Your task to perform on an android device: toggle javascript in the chrome app Image 0: 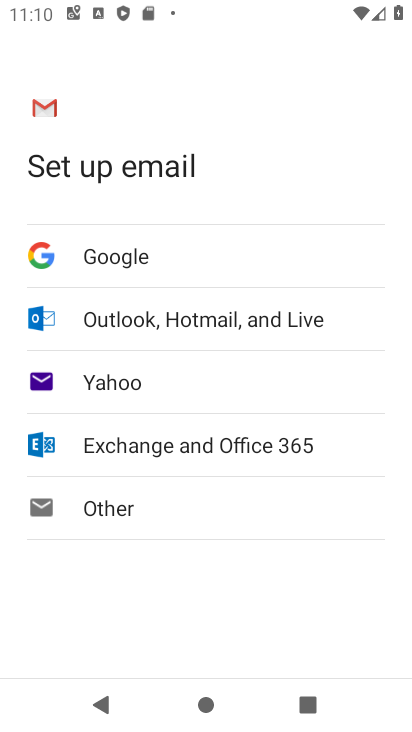
Step 0: press home button
Your task to perform on an android device: toggle javascript in the chrome app Image 1: 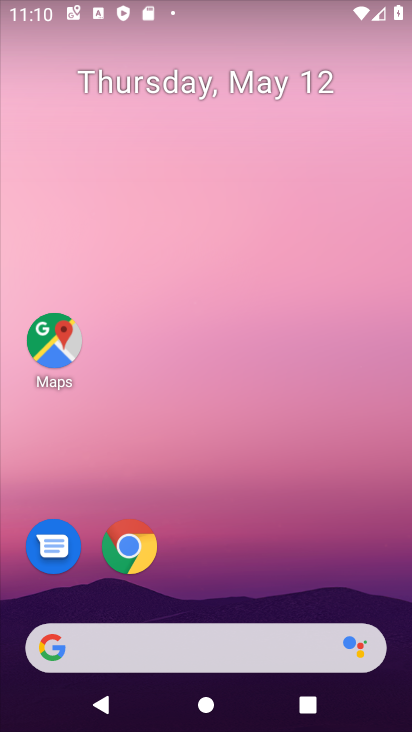
Step 1: drag from (259, 669) to (325, 179)
Your task to perform on an android device: toggle javascript in the chrome app Image 2: 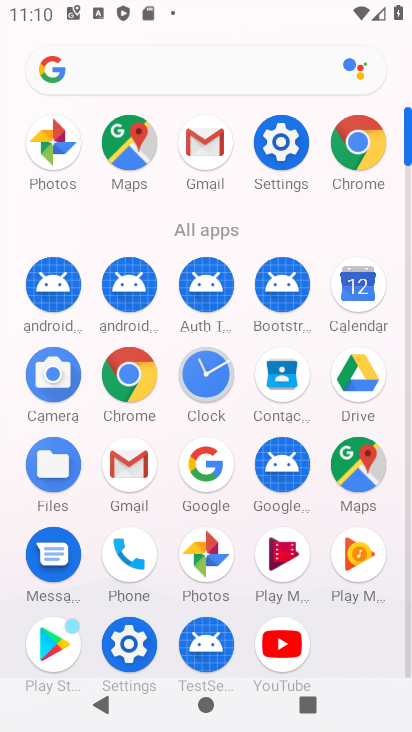
Step 2: click (360, 163)
Your task to perform on an android device: toggle javascript in the chrome app Image 3: 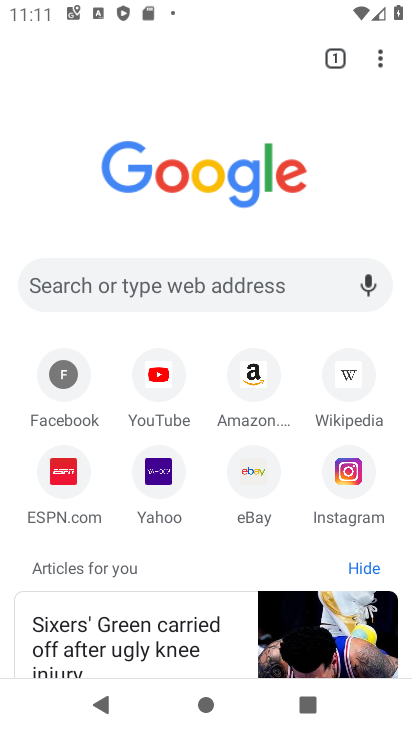
Step 3: click (379, 61)
Your task to perform on an android device: toggle javascript in the chrome app Image 4: 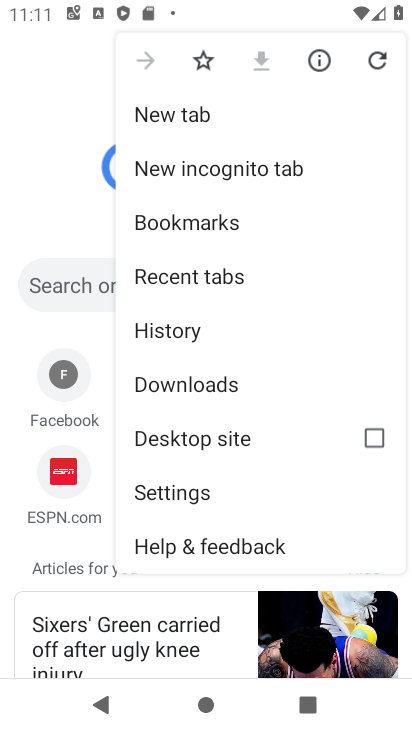
Step 4: click (167, 496)
Your task to perform on an android device: toggle javascript in the chrome app Image 5: 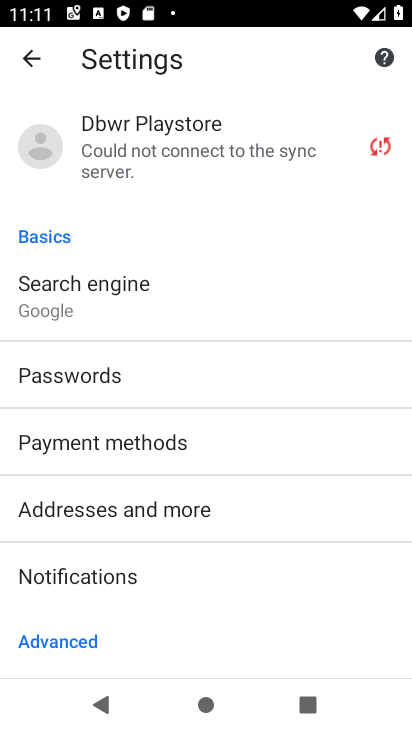
Step 5: drag from (142, 575) to (162, 350)
Your task to perform on an android device: toggle javascript in the chrome app Image 6: 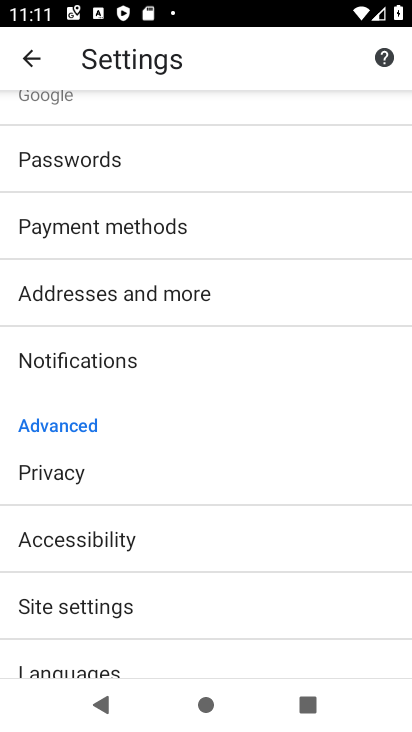
Step 6: click (93, 623)
Your task to perform on an android device: toggle javascript in the chrome app Image 7: 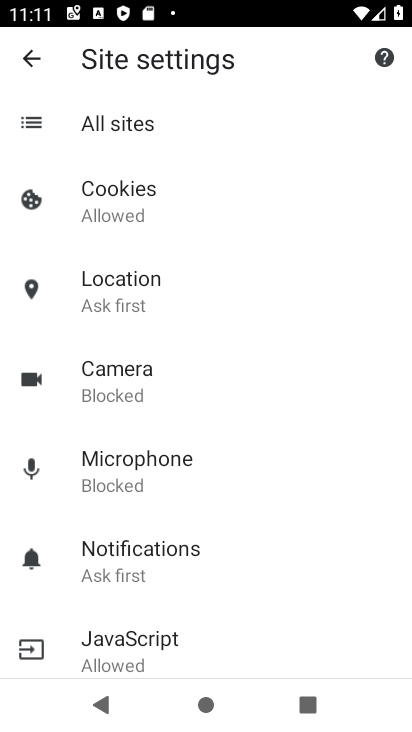
Step 7: click (142, 639)
Your task to perform on an android device: toggle javascript in the chrome app Image 8: 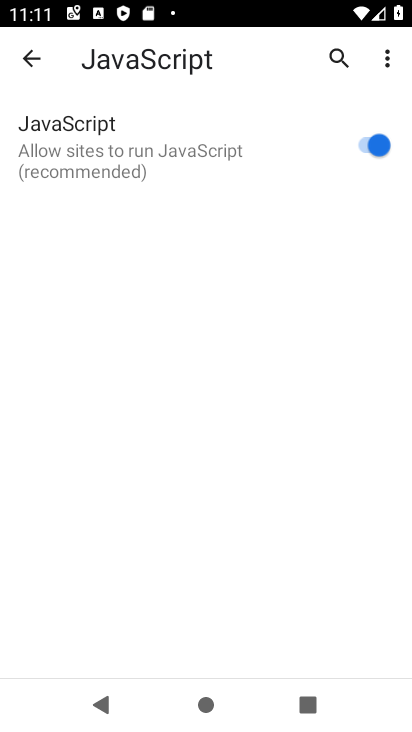
Step 8: task complete